Your task to perform on an android device: Open internet settings Image 0: 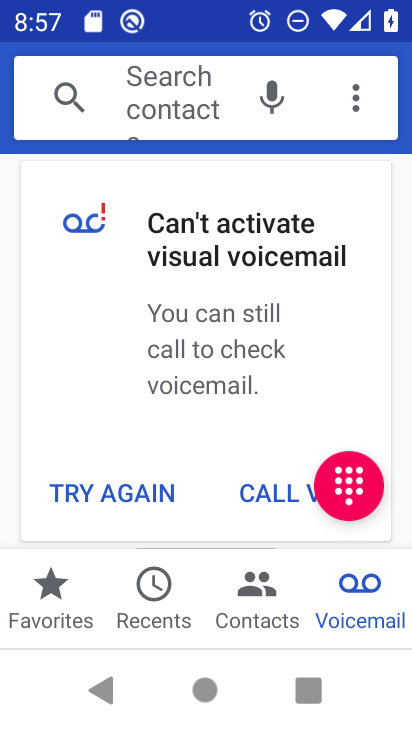
Step 0: press home button
Your task to perform on an android device: Open internet settings Image 1: 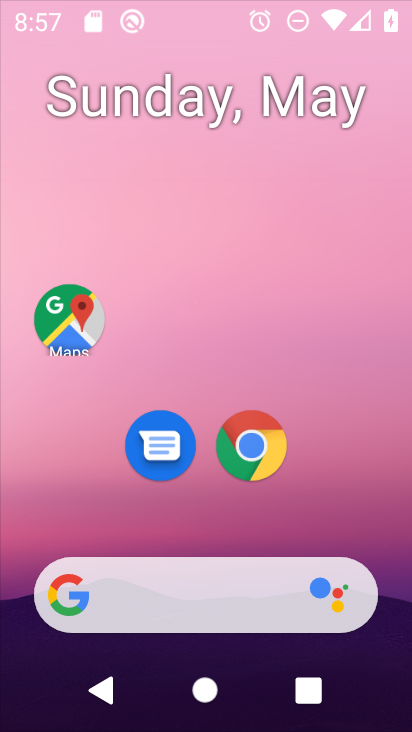
Step 1: drag from (216, 650) to (281, 81)
Your task to perform on an android device: Open internet settings Image 2: 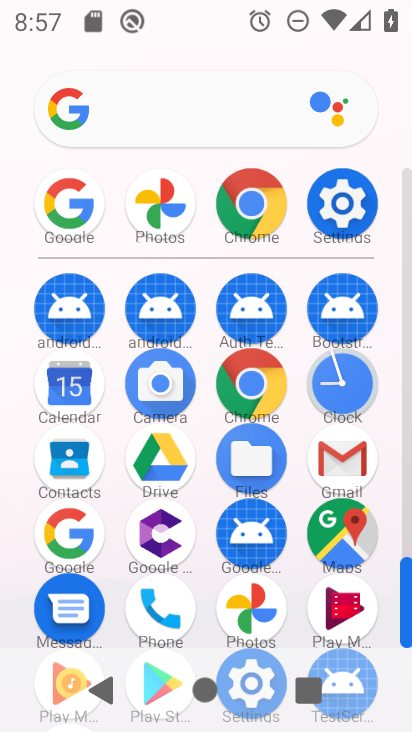
Step 2: click (343, 236)
Your task to perform on an android device: Open internet settings Image 3: 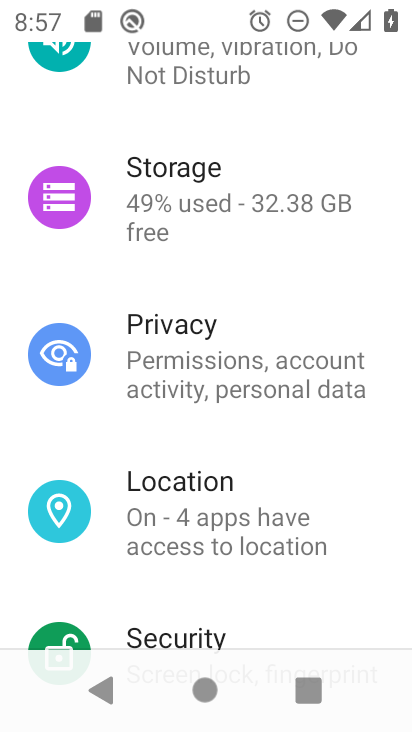
Step 3: drag from (206, 420) to (244, 601)
Your task to perform on an android device: Open internet settings Image 4: 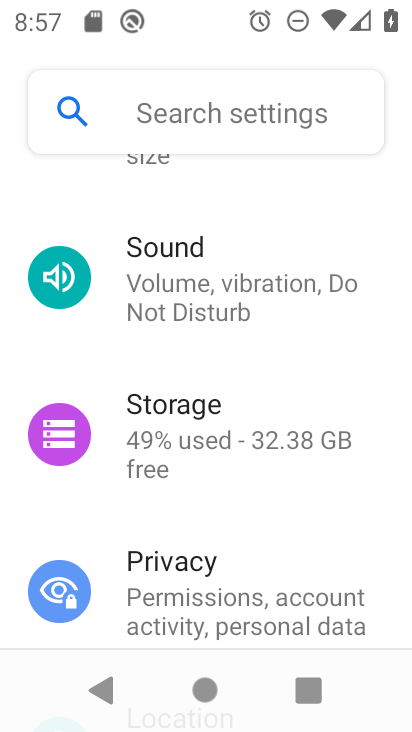
Step 4: drag from (277, 396) to (261, 698)
Your task to perform on an android device: Open internet settings Image 5: 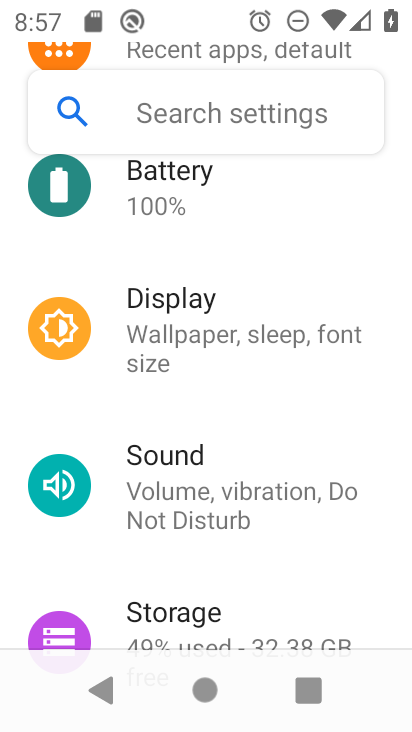
Step 5: drag from (251, 320) to (230, 724)
Your task to perform on an android device: Open internet settings Image 6: 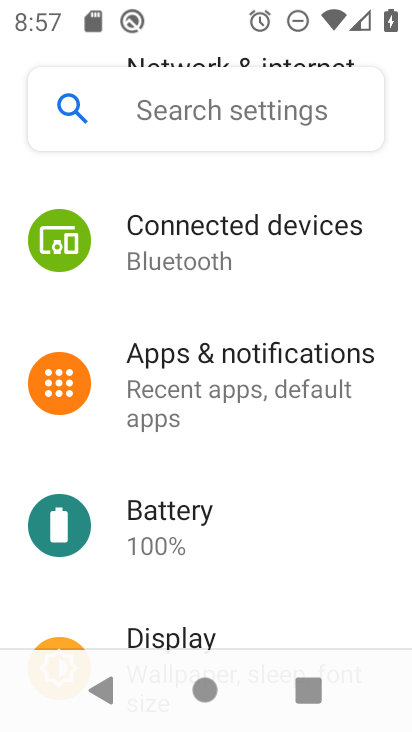
Step 6: drag from (249, 319) to (201, 731)
Your task to perform on an android device: Open internet settings Image 7: 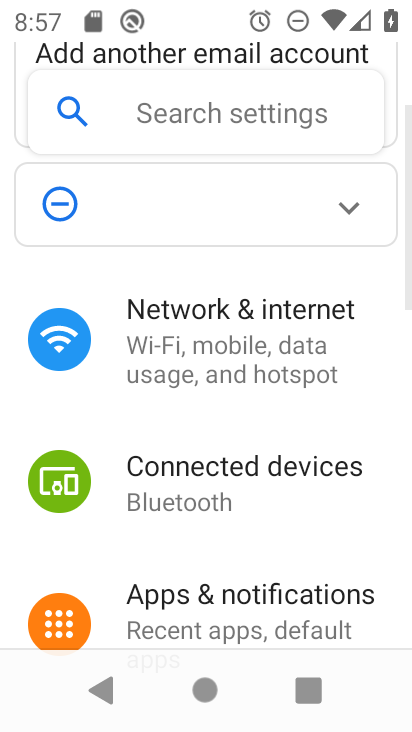
Step 7: click (248, 352)
Your task to perform on an android device: Open internet settings Image 8: 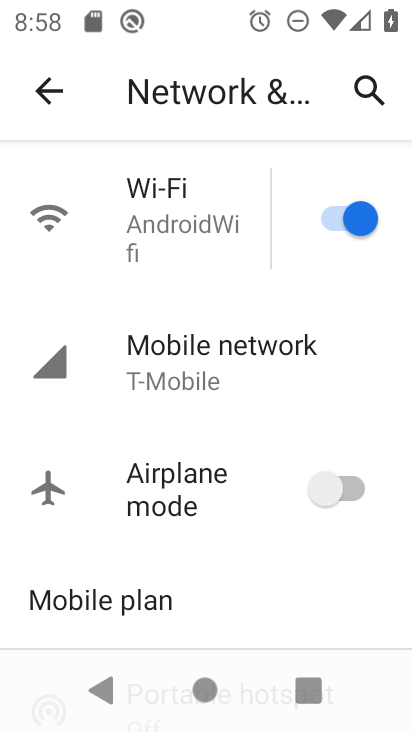
Step 8: click (238, 370)
Your task to perform on an android device: Open internet settings Image 9: 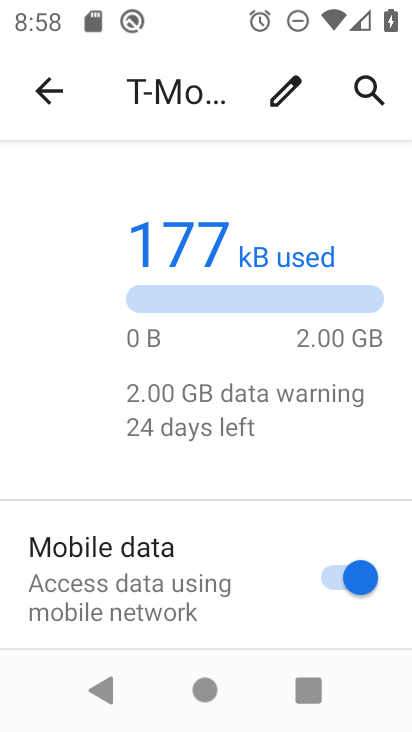
Step 9: task complete